Your task to perform on an android device: Open Google Maps Image 0: 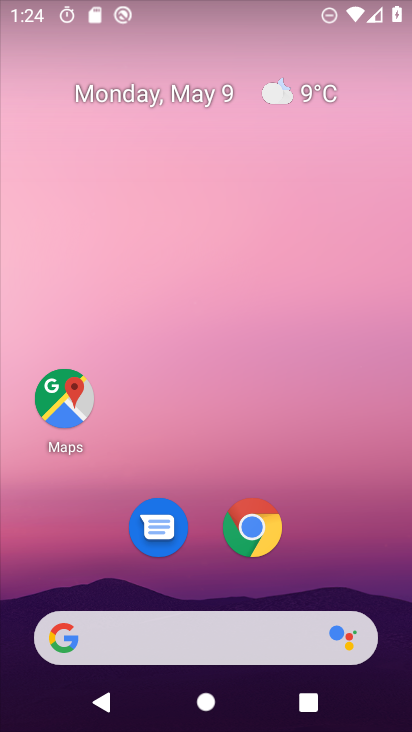
Step 0: click (67, 397)
Your task to perform on an android device: Open Google Maps Image 1: 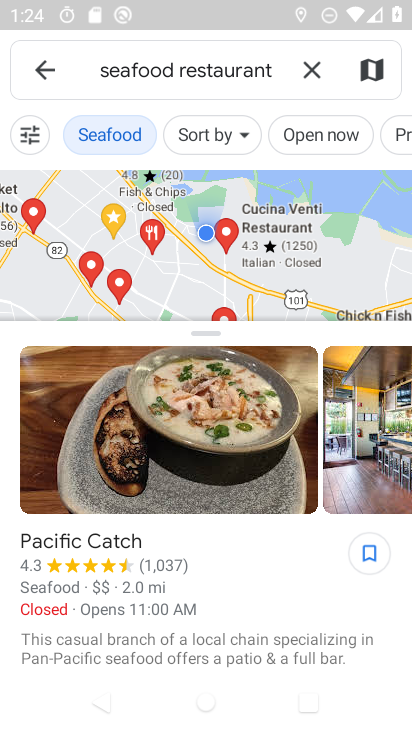
Step 1: task complete